Your task to perform on an android device: check the backup settings in the google photos Image 0: 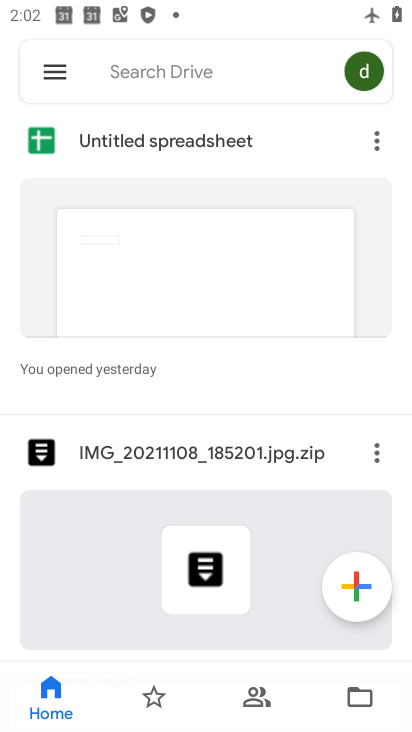
Step 0: press home button
Your task to perform on an android device: check the backup settings in the google photos Image 1: 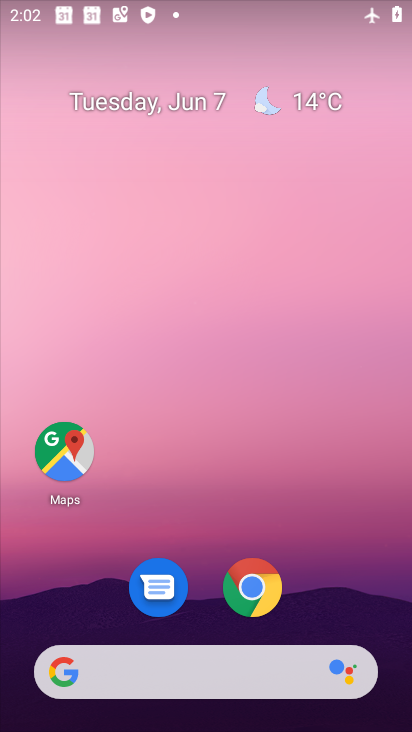
Step 1: drag from (232, 666) to (234, 146)
Your task to perform on an android device: check the backup settings in the google photos Image 2: 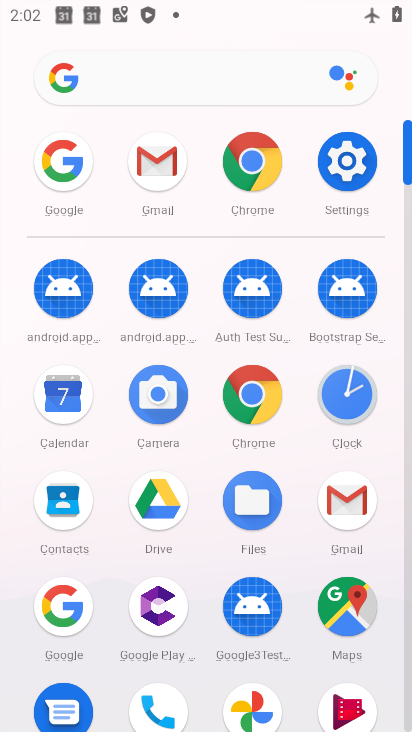
Step 2: drag from (217, 527) to (211, 186)
Your task to perform on an android device: check the backup settings in the google photos Image 3: 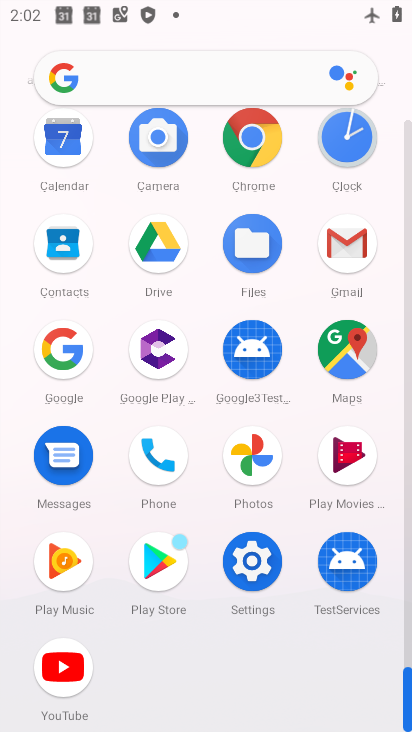
Step 3: click (250, 453)
Your task to perform on an android device: check the backup settings in the google photos Image 4: 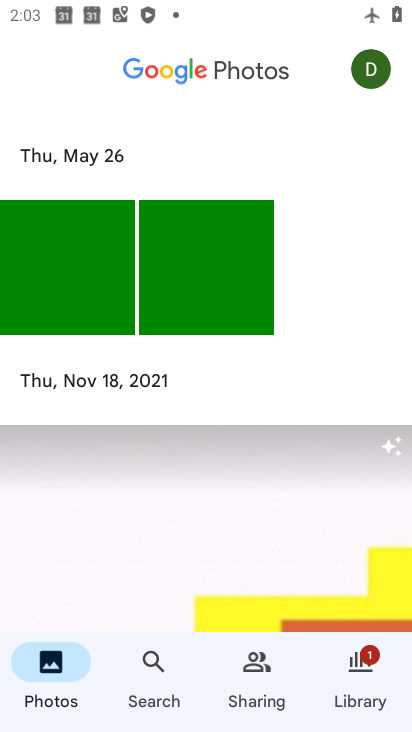
Step 4: click (355, 73)
Your task to perform on an android device: check the backup settings in the google photos Image 5: 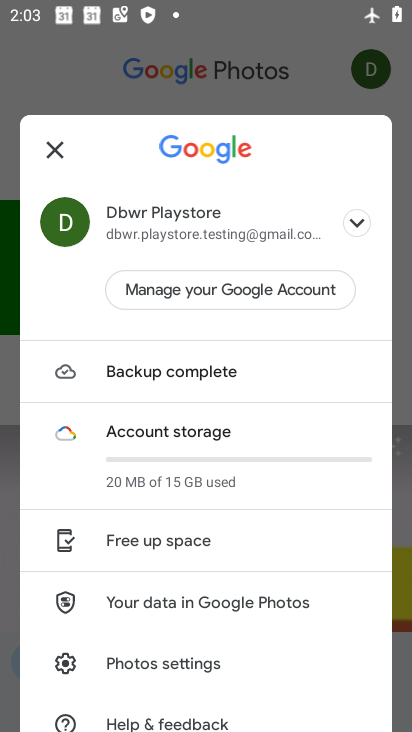
Step 5: drag from (148, 540) to (161, 283)
Your task to perform on an android device: check the backup settings in the google photos Image 6: 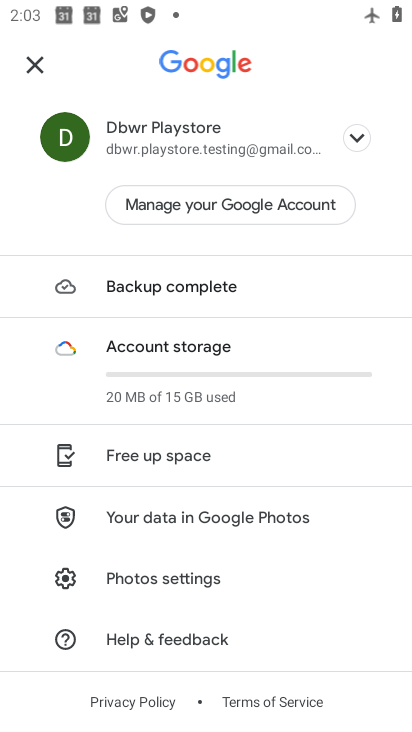
Step 6: click (188, 578)
Your task to perform on an android device: check the backup settings in the google photos Image 7: 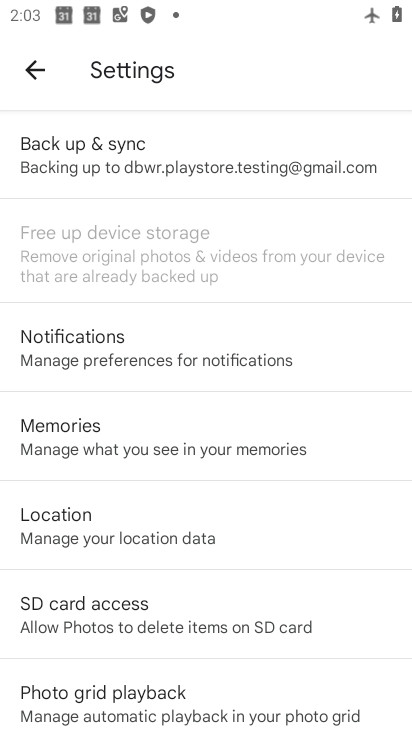
Step 7: click (167, 144)
Your task to perform on an android device: check the backup settings in the google photos Image 8: 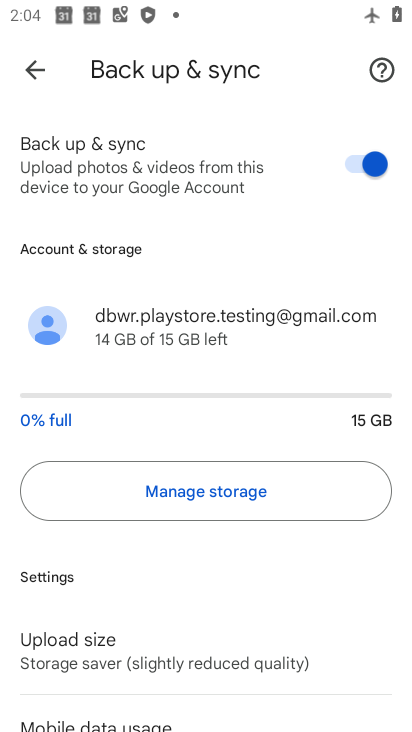
Step 8: task complete